Your task to perform on an android device: change the clock style Image 0: 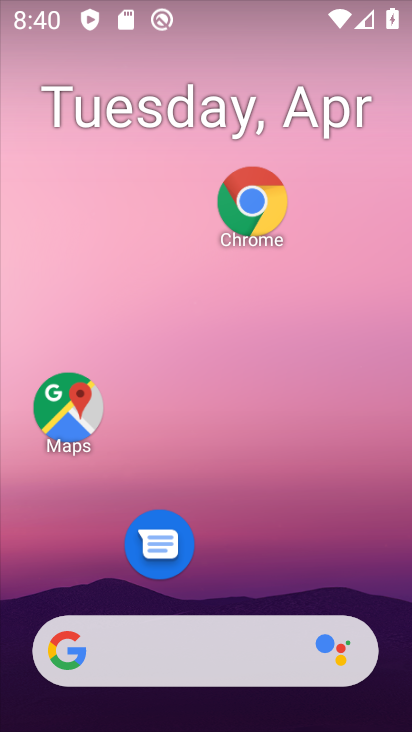
Step 0: drag from (211, 599) to (315, 88)
Your task to perform on an android device: change the clock style Image 1: 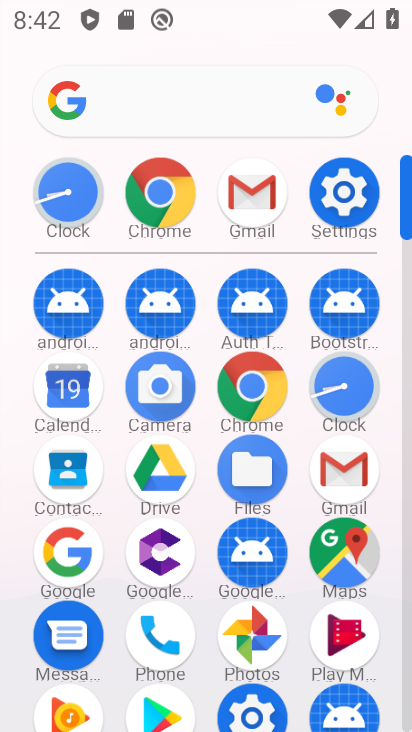
Step 1: click (334, 394)
Your task to perform on an android device: change the clock style Image 2: 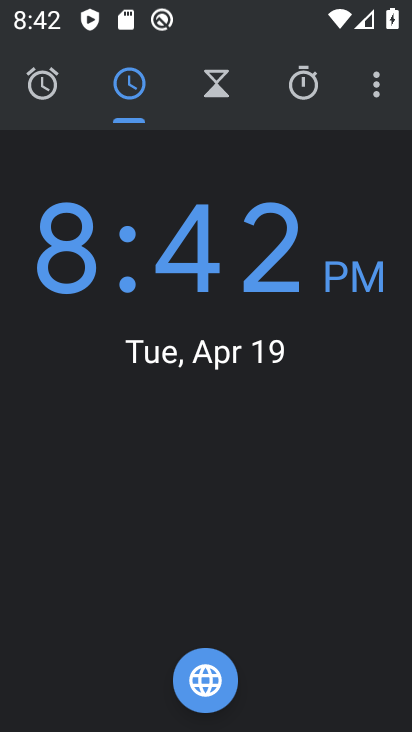
Step 2: click (380, 101)
Your task to perform on an android device: change the clock style Image 3: 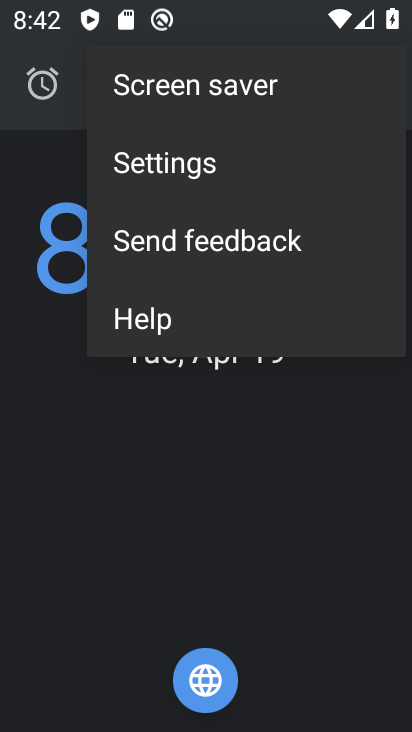
Step 3: click (188, 165)
Your task to perform on an android device: change the clock style Image 4: 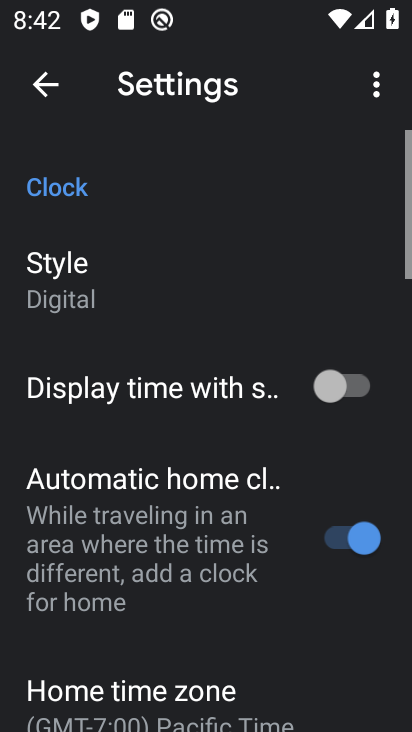
Step 4: click (78, 294)
Your task to perform on an android device: change the clock style Image 5: 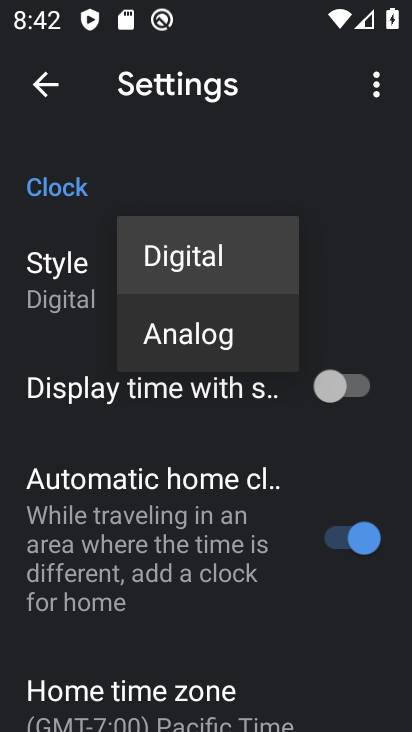
Step 5: click (170, 324)
Your task to perform on an android device: change the clock style Image 6: 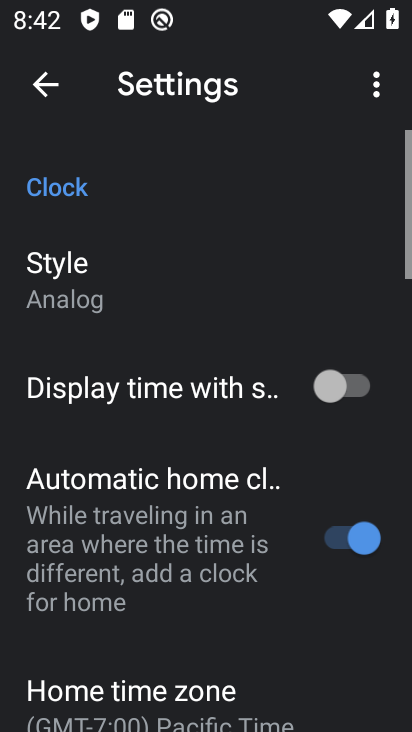
Step 6: task complete